Your task to perform on an android device: allow cookies in the chrome app Image 0: 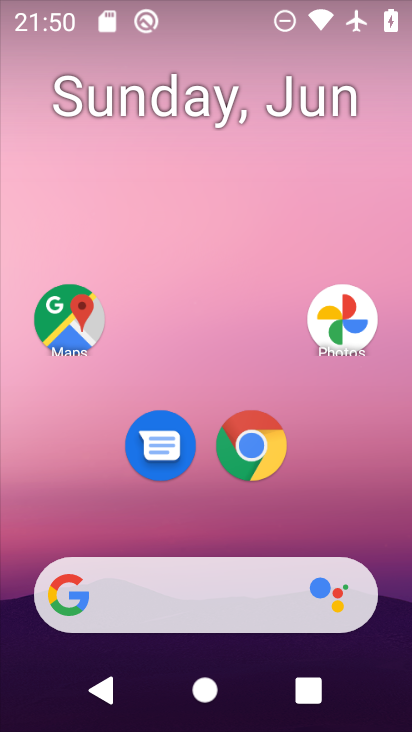
Step 0: click (253, 464)
Your task to perform on an android device: allow cookies in the chrome app Image 1: 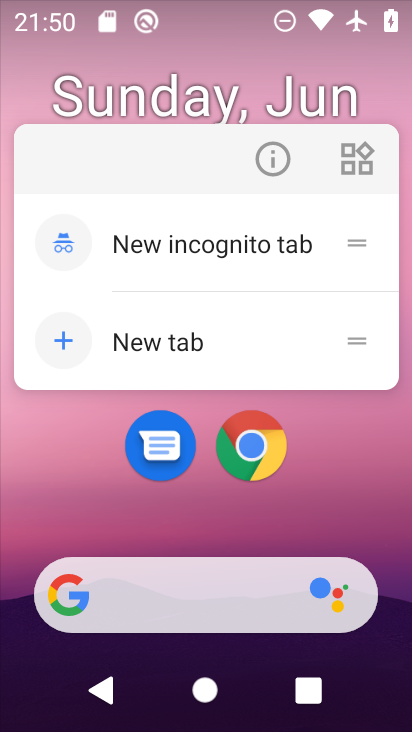
Step 1: click (255, 457)
Your task to perform on an android device: allow cookies in the chrome app Image 2: 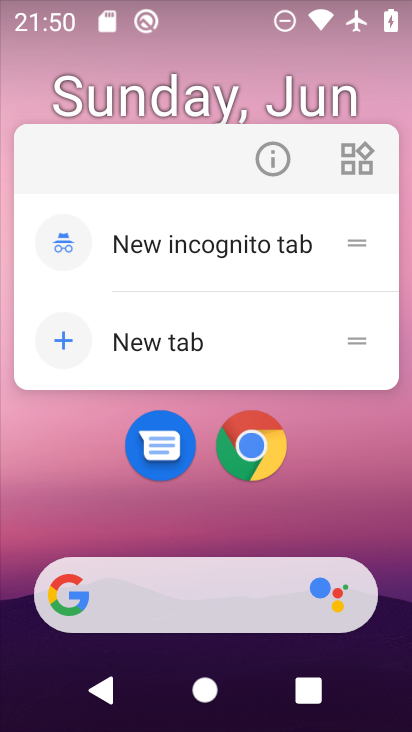
Step 2: click (251, 450)
Your task to perform on an android device: allow cookies in the chrome app Image 3: 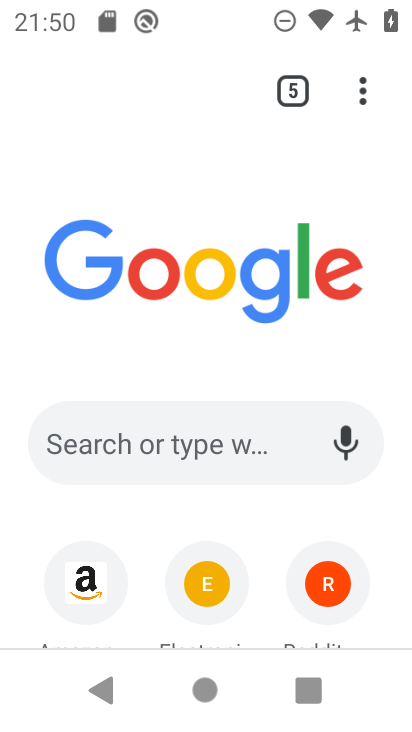
Step 3: click (369, 84)
Your task to perform on an android device: allow cookies in the chrome app Image 4: 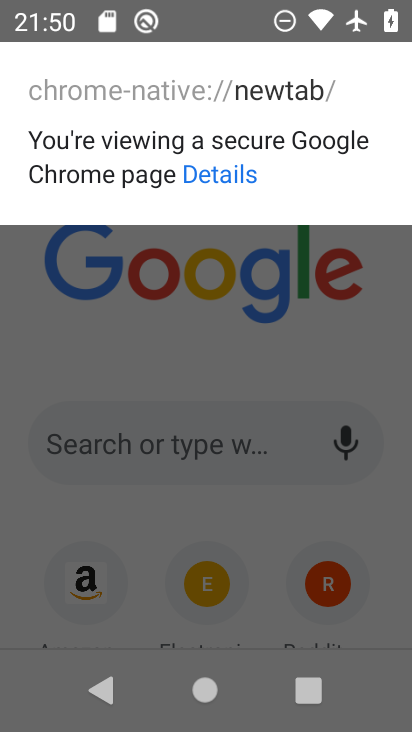
Step 4: click (383, 264)
Your task to perform on an android device: allow cookies in the chrome app Image 5: 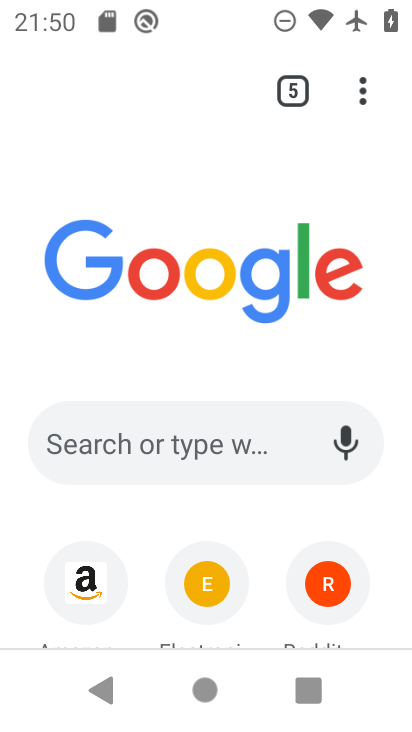
Step 5: drag from (368, 93) to (189, 490)
Your task to perform on an android device: allow cookies in the chrome app Image 6: 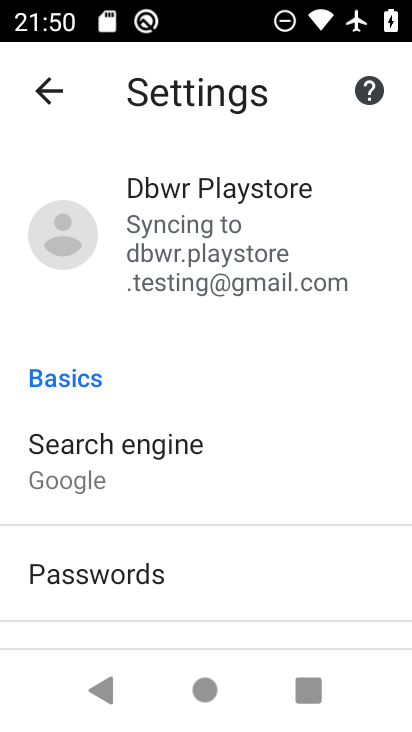
Step 6: drag from (273, 590) to (299, 23)
Your task to perform on an android device: allow cookies in the chrome app Image 7: 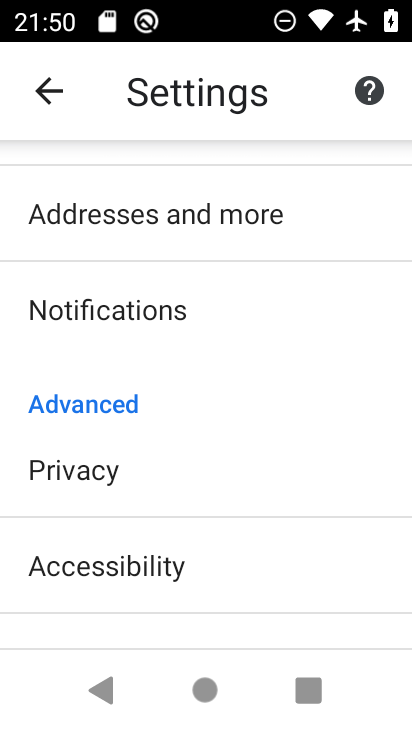
Step 7: drag from (307, 540) to (315, 192)
Your task to perform on an android device: allow cookies in the chrome app Image 8: 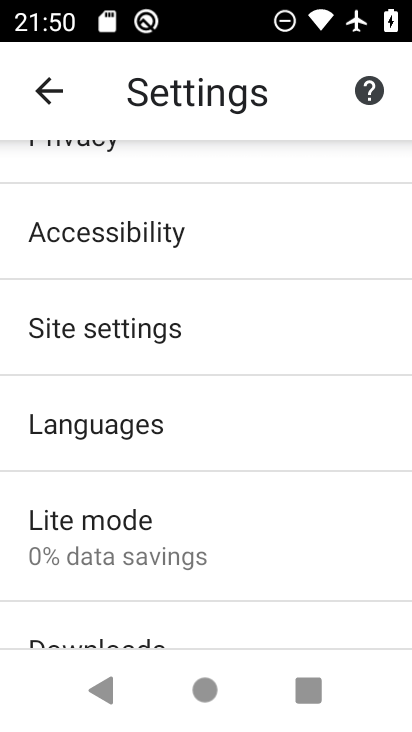
Step 8: click (99, 330)
Your task to perform on an android device: allow cookies in the chrome app Image 9: 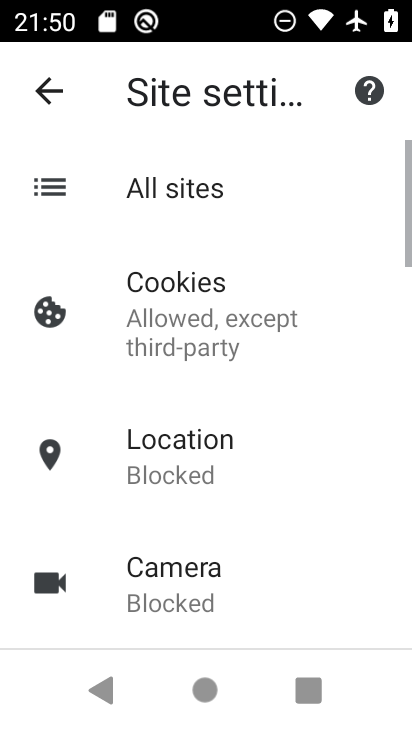
Step 9: click (195, 311)
Your task to perform on an android device: allow cookies in the chrome app Image 10: 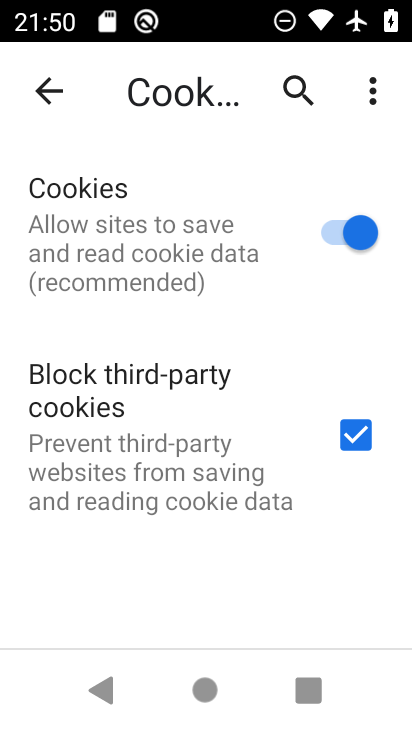
Step 10: task complete